Your task to perform on an android device: Go to Maps Image 0: 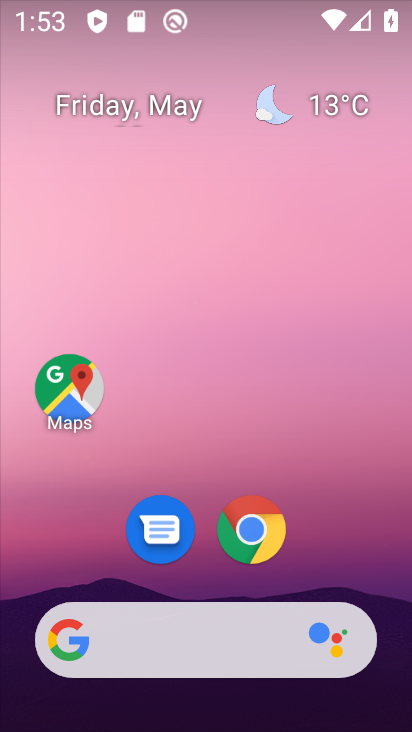
Step 0: drag from (327, 550) to (304, 148)
Your task to perform on an android device: Go to Maps Image 1: 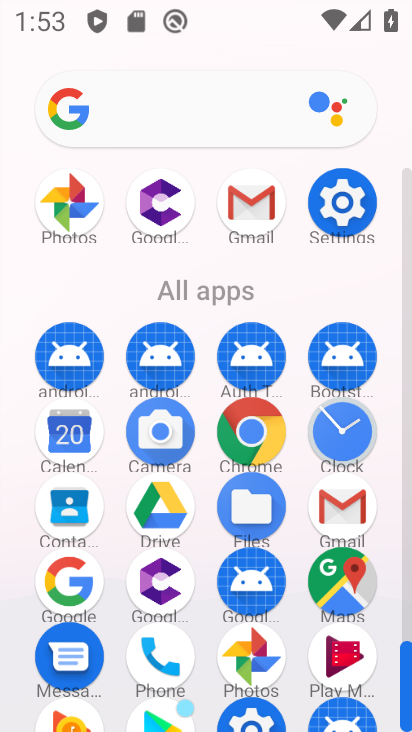
Step 1: click (328, 577)
Your task to perform on an android device: Go to Maps Image 2: 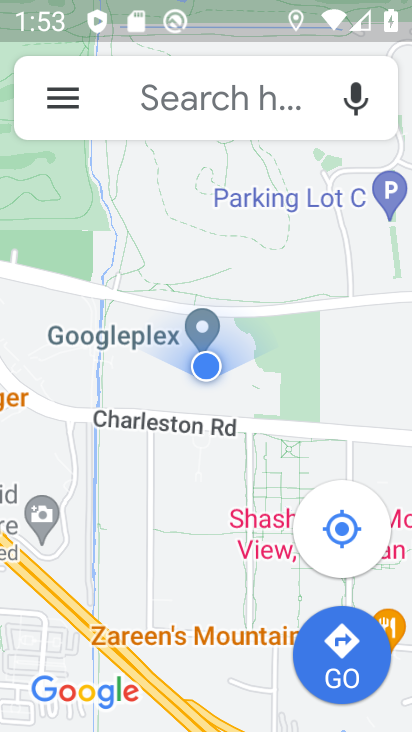
Step 2: task complete